Your task to perform on an android device: Go to Amazon Image 0: 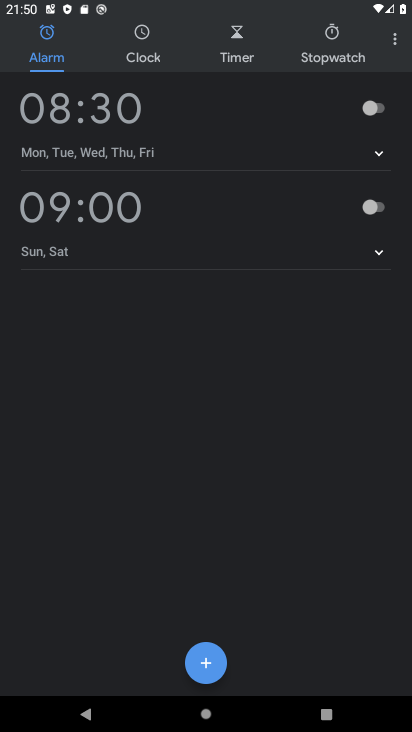
Step 0: press home button
Your task to perform on an android device: Go to Amazon Image 1: 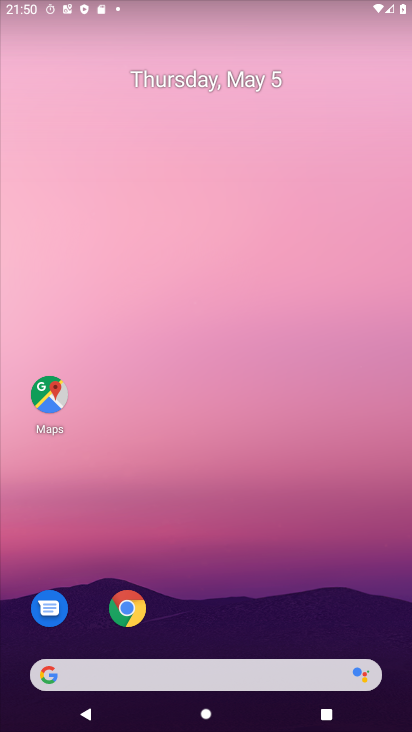
Step 1: drag from (293, 600) to (163, 4)
Your task to perform on an android device: Go to Amazon Image 2: 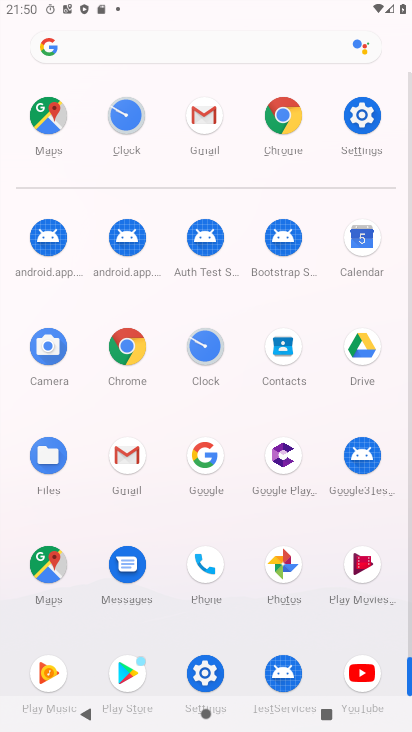
Step 2: click (123, 345)
Your task to perform on an android device: Go to Amazon Image 3: 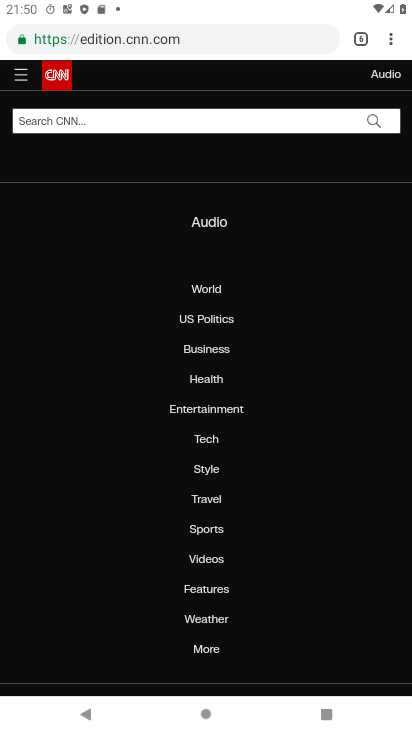
Step 3: click (233, 43)
Your task to perform on an android device: Go to Amazon Image 4: 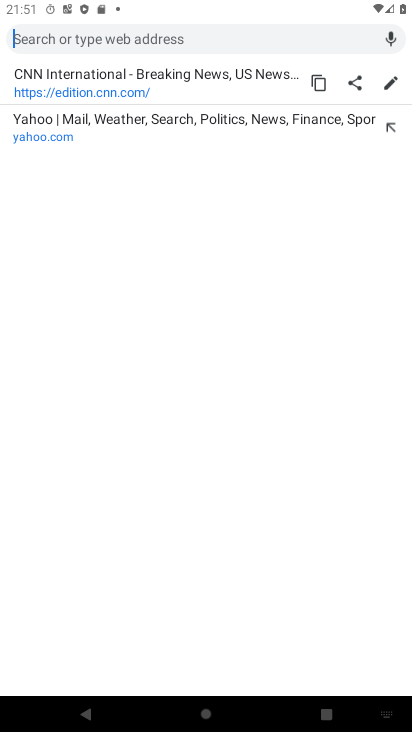
Step 4: type "amazon"
Your task to perform on an android device: Go to Amazon Image 5: 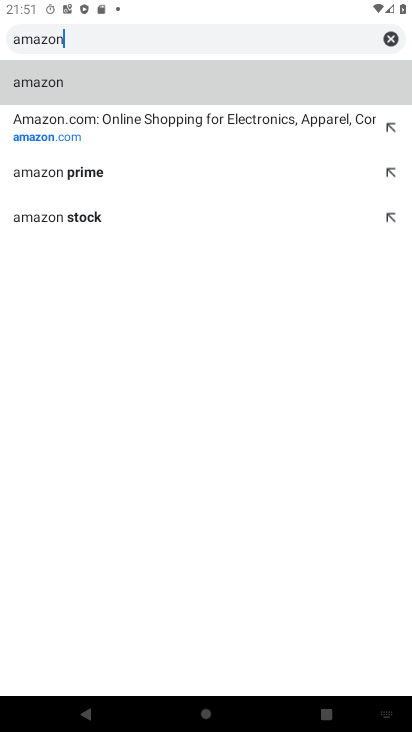
Step 5: click (223, 116)
Your task to perform on an android device: Go to Amazon Image 6: 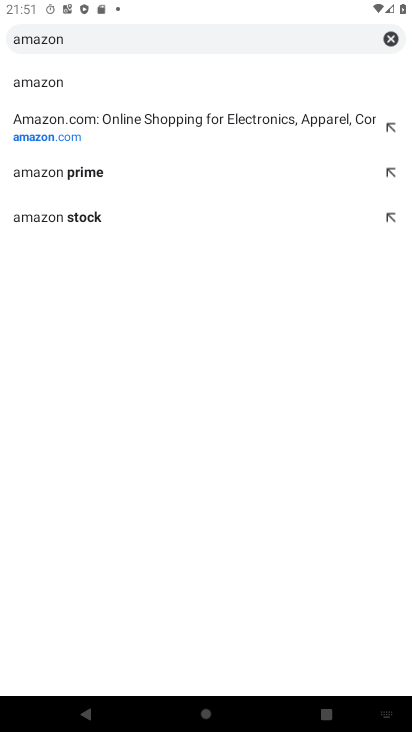
Step 6: click (82, 125)
Your task to perform on an android device: Go to Amazon Image 7: 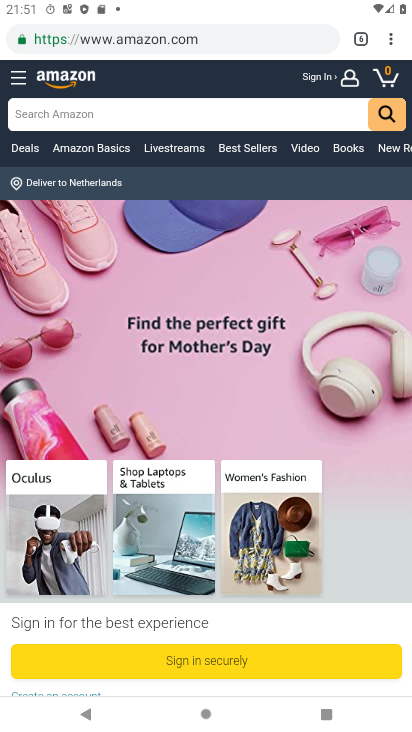
Step 7: task complete